Your task to perform on an android device: What is the recent news? Image 0: 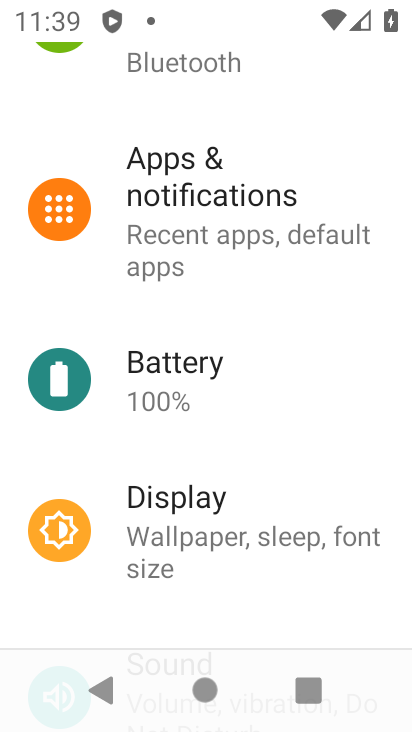
Step 0: press back button
Your task to perform on an android device: What is the recent news? Image 1: 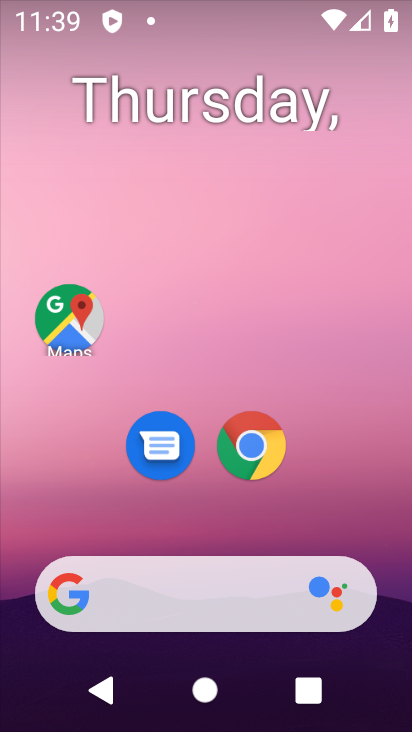
Step 1: drag from (338, 620) to (130, 156)
Your task to perform on an android device: What is the recent news? Image 2: 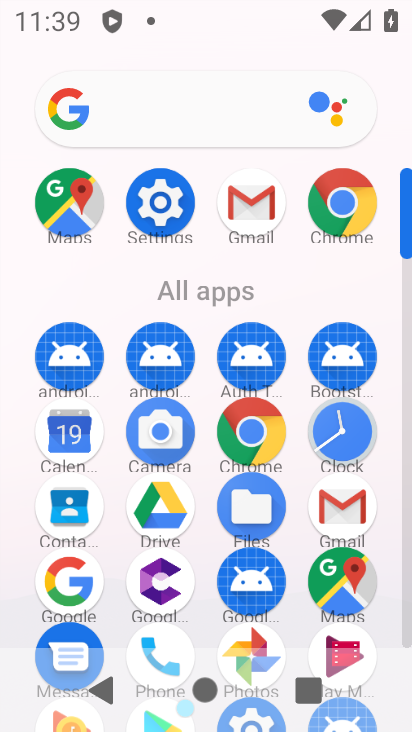
Step 2: press back button
Your task to perform on an android device: What is the recent news? Image 3: 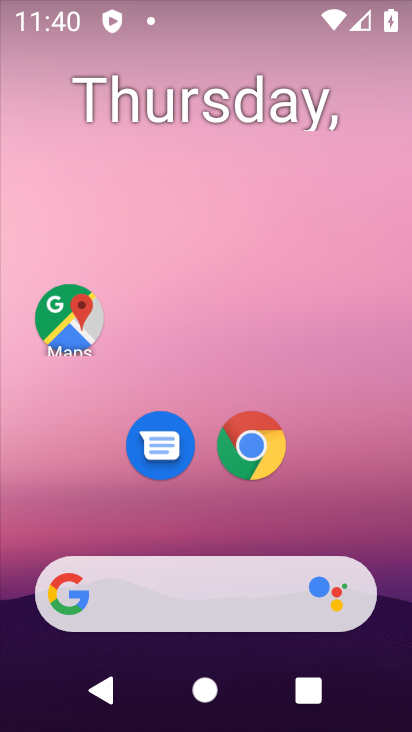
Step 3: drag from (32, 246) to (404, 564)
Your task to perform on an android device: What is the recent news? Image 4: 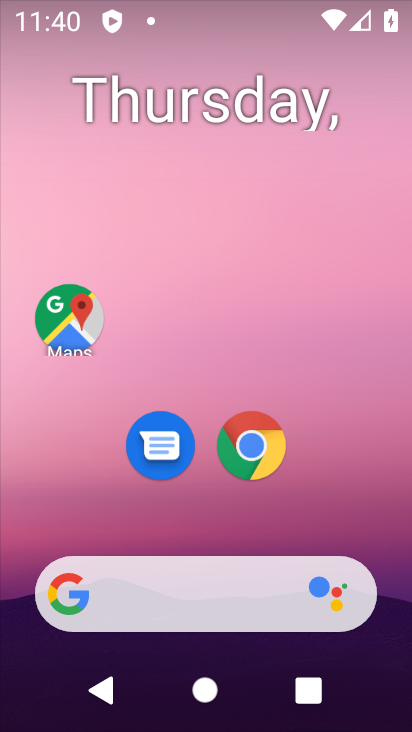
Step 4: drag from (198, 387) to (387, 370)
Your task to perform on an android device: What is the recent news? Image 5: 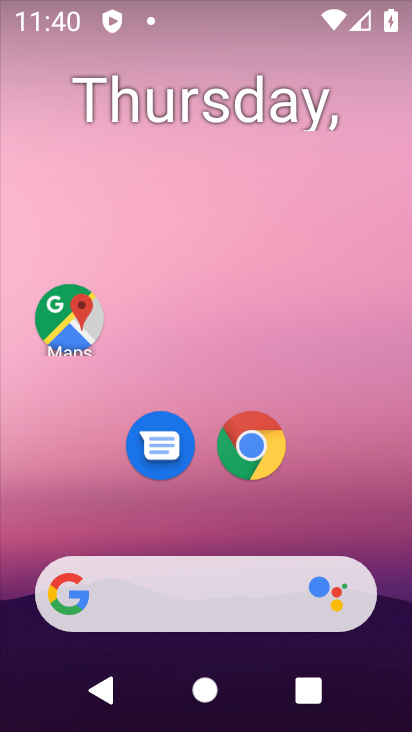
Step 5: drag from (8, 235) to (373, 433)
Your task to perform on an android device: What is the recent news? Image 6: 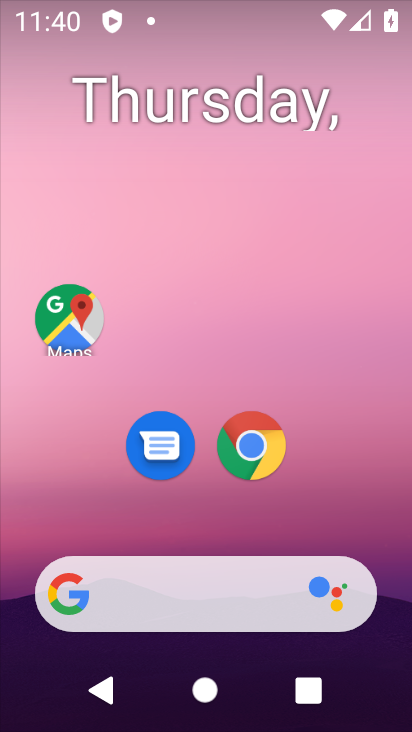
Step 6: drag from (8, 268) to (367, 582)
Your task to perform on an android device: What is the recent news? Image 7: 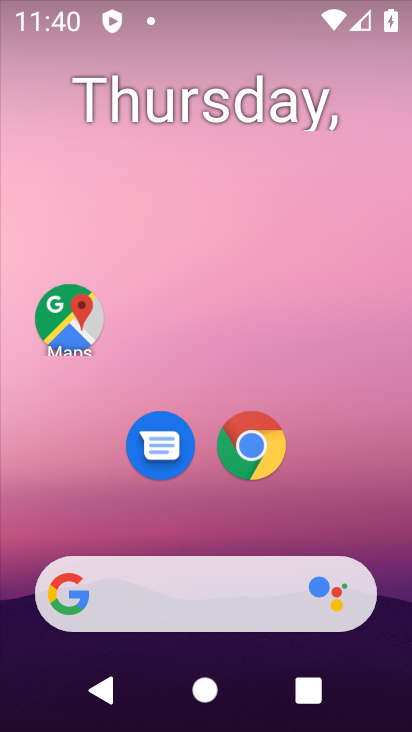
Step 7: click (347, 528)
Your task to perform on an android device: What is the recent news? Image 8: 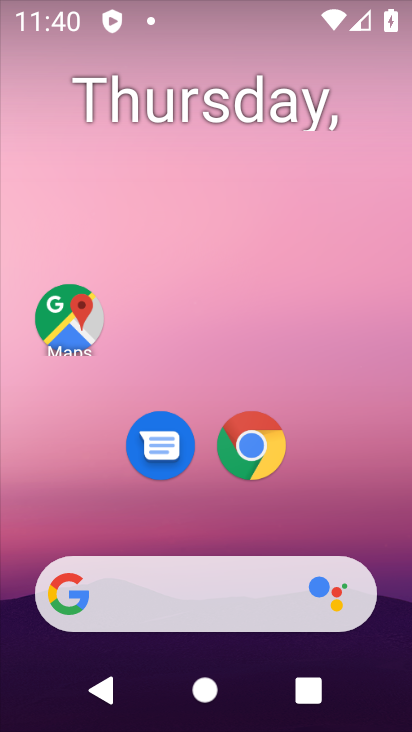
Step 8: drag from (32, 288) to (411, 416)
Your task to perform on an android device: What is the recent news? Image 9: 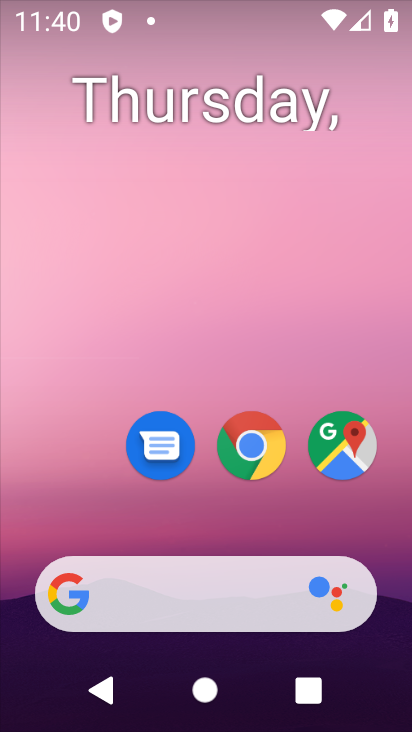
Step 9: drag from (11, 240) to (351, 349)
Your task to perform on an android device: What is the recent news? Image 10: 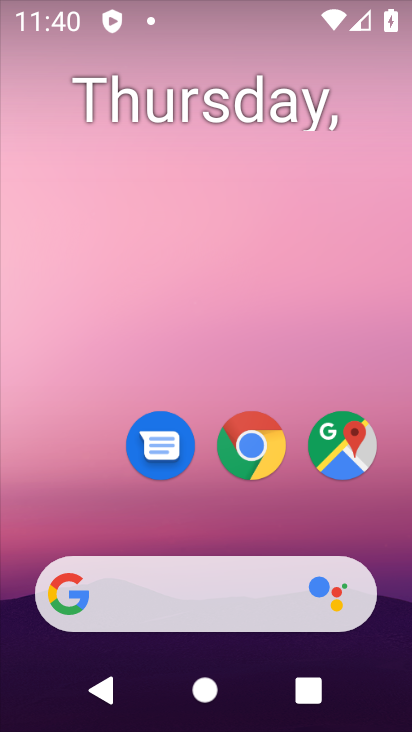
Step 10: drag from (27, 225) to (392, 380)
Your task to perform on an android device: What is the recent news? Image 11: 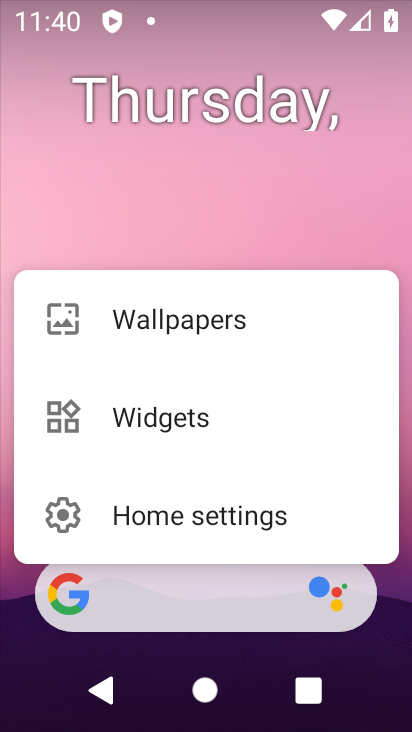
Step 11: drag from (4, 232) to (401, 421)
Your task to perform on an android device: What is the recent news? Image 12: 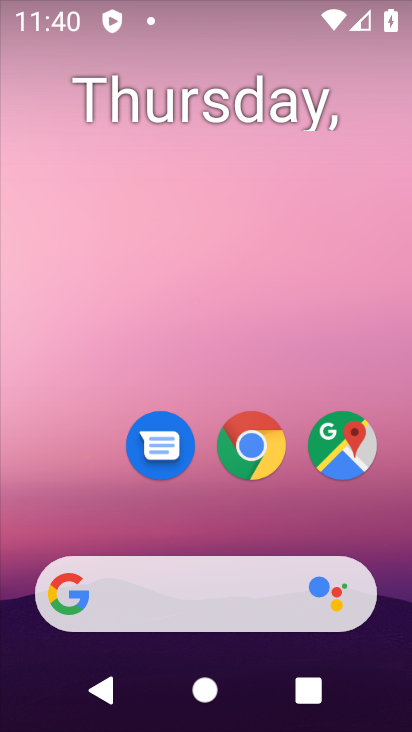
Step 12: click (113, 222)
Your task to perform on an android device: What is the recent news? Image 13: 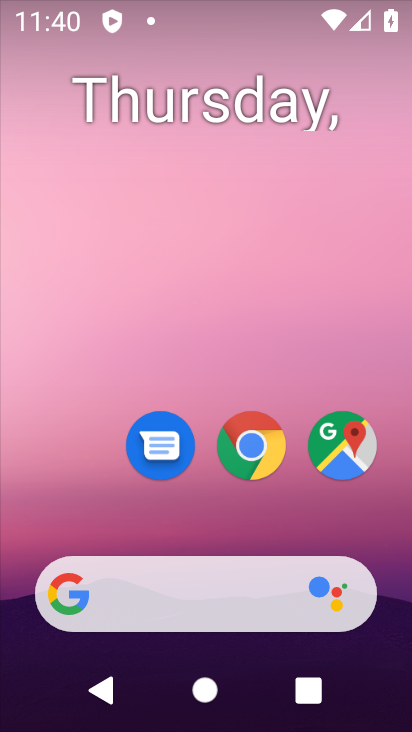
Step 13: task complete